Your task to perform on an android device: View the shopping cart on walmart. Add "apple airpods" to the cart on walmart, then select checkout. Image 0: 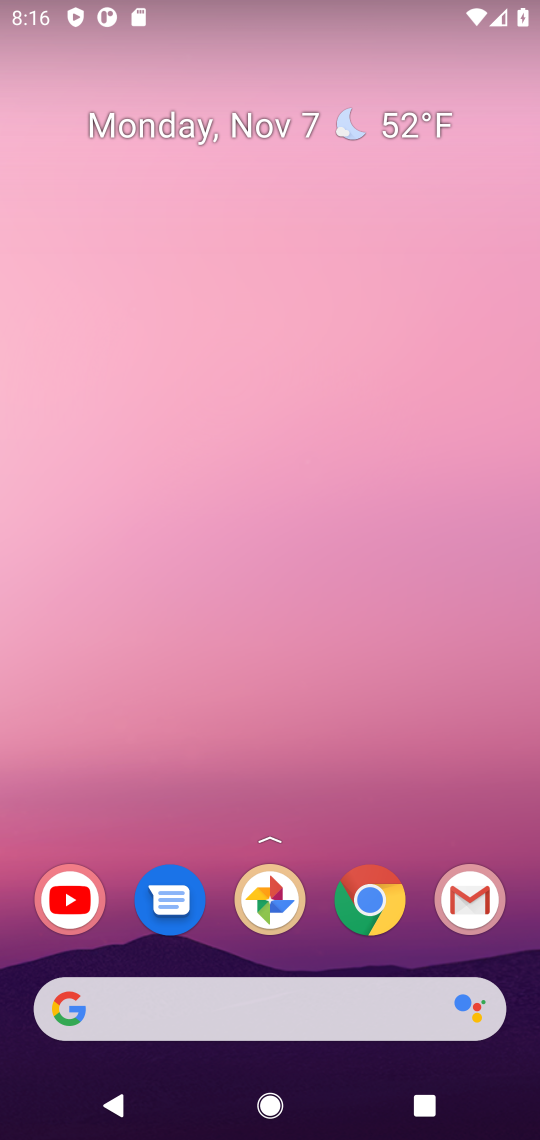
Step 0: click (399, 1005)
Your task to perform on an android device: View the shopping cart on walmart. Add "apple airpods" to the cart on walmart, then select checkout. Image 1: 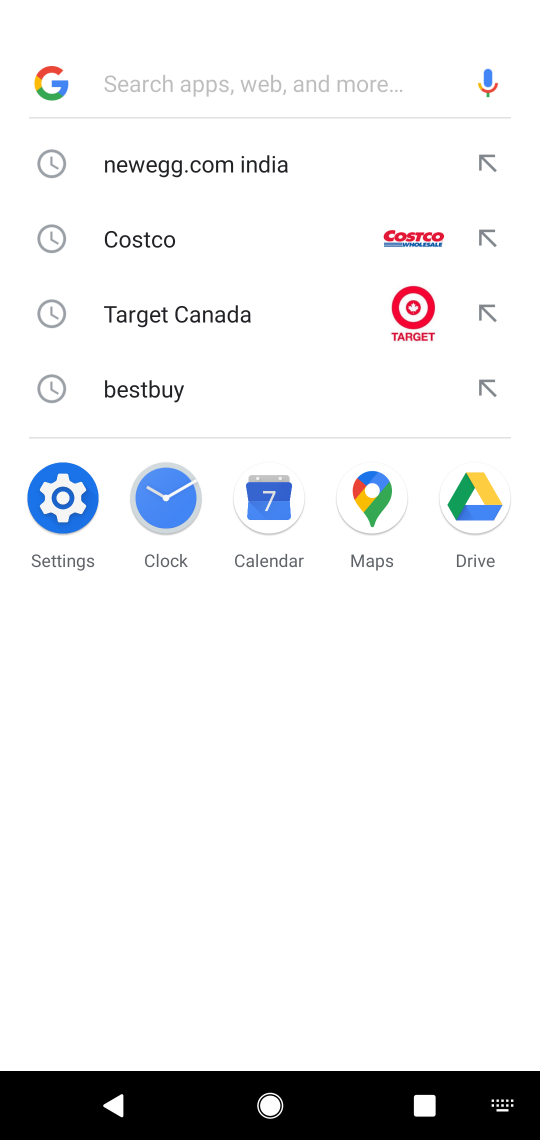
Step 1: type "walmart"
Your task to perform on an android device: View the shopping cart on walmart. Add "apple airpods" to the cart on walmart, then select checkout. Image 2: 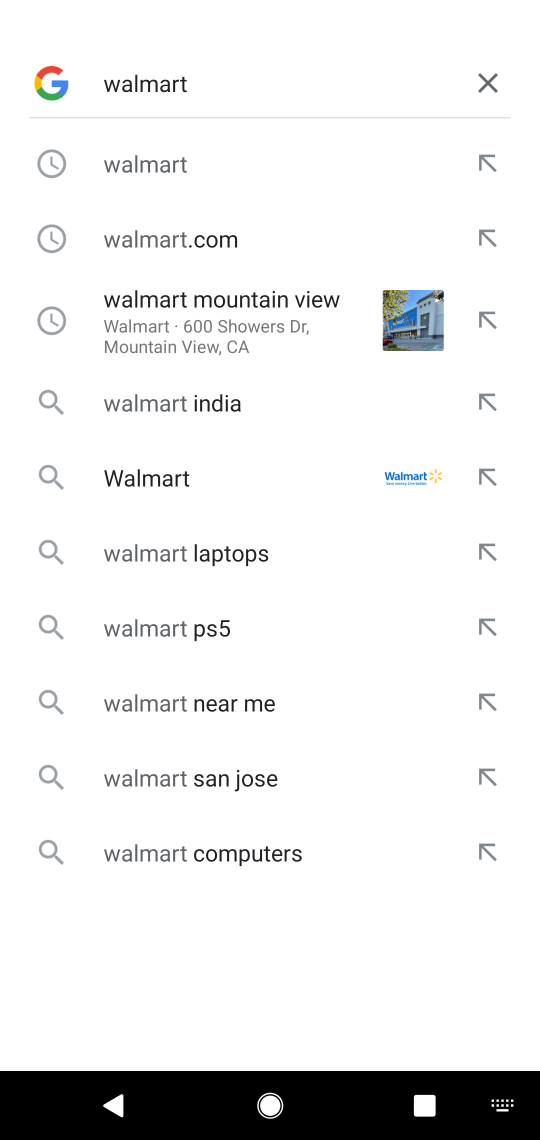
Step 2: click (335, 301)
Your task to perform on an android device: View the shopping cart on walmart. Add "apple airpods" to the cart on walmart, then select checkout. Image 3: 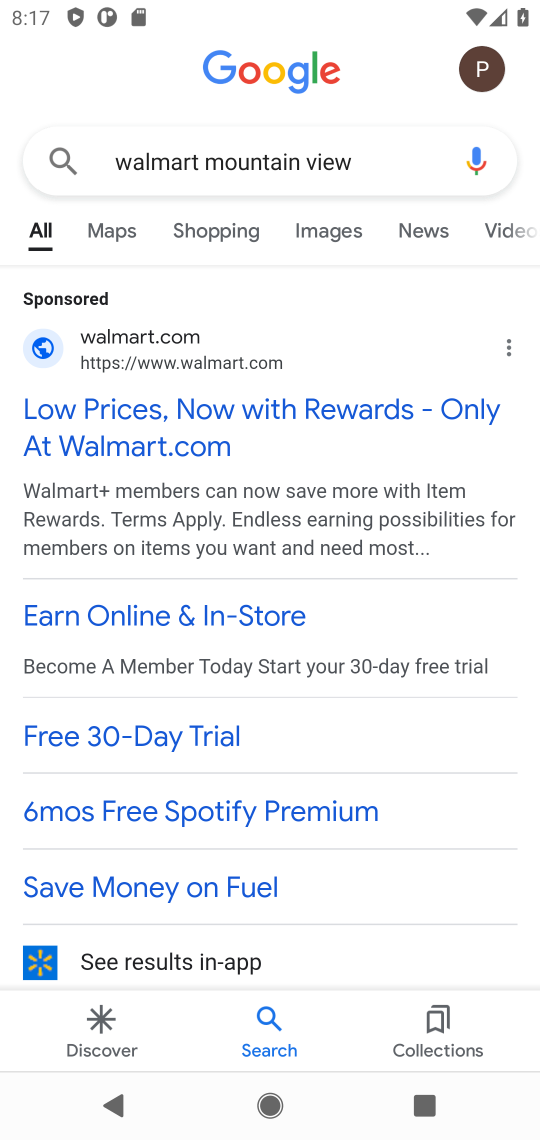
Step 3: click (478, 79)
Your task to perform on an android device: View the shopping cart on walmart. Add "apple airpods" to the cart on walmart, then select checkout. Image 4: 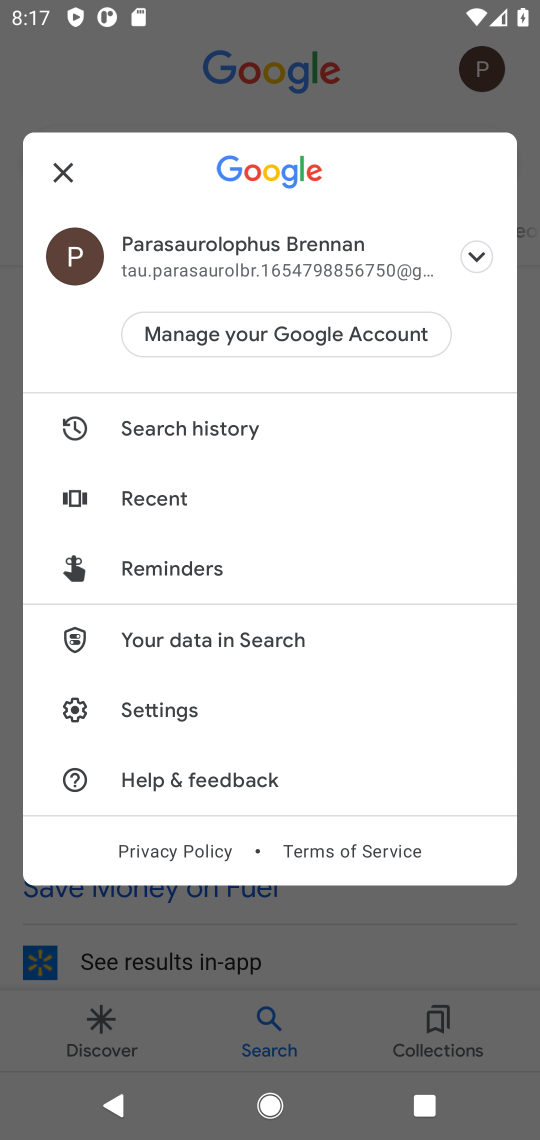
Step 4: task complete